Your task to perform on an android device: turn on airplane mode Image 0: 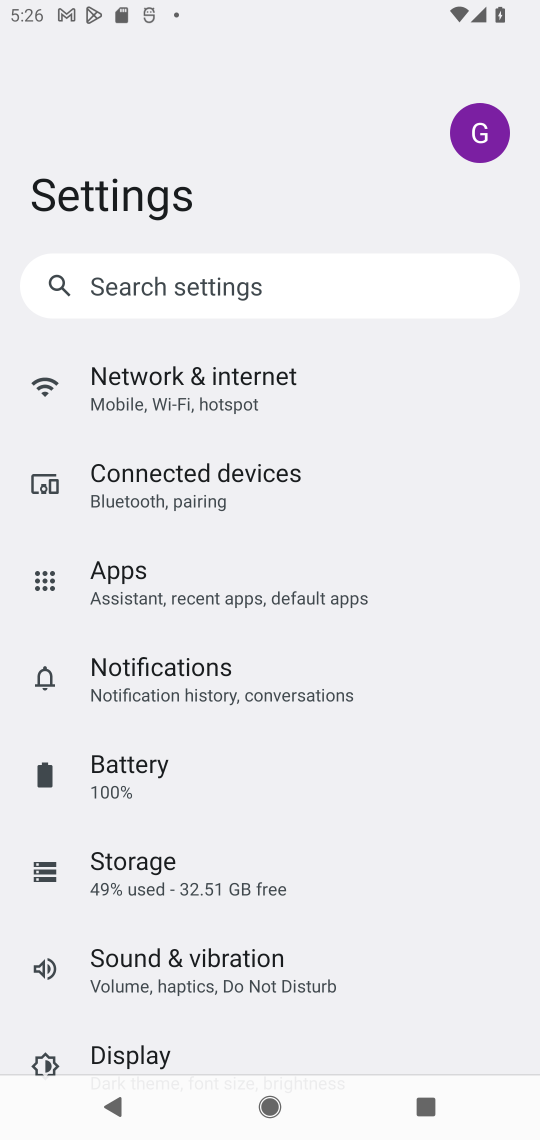
Step 0: click (293, 419)
Your task to perform on an android device: turn on airplane mode Image 1: 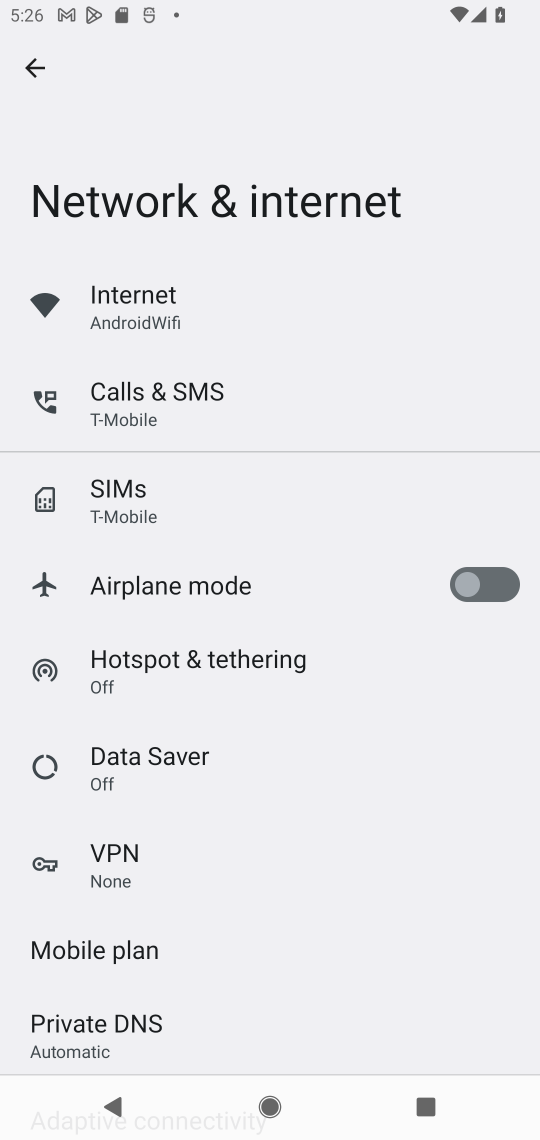
Step 1: click (464, 593)
Your task to perform on an android device: turn on airplane mode Image 2: 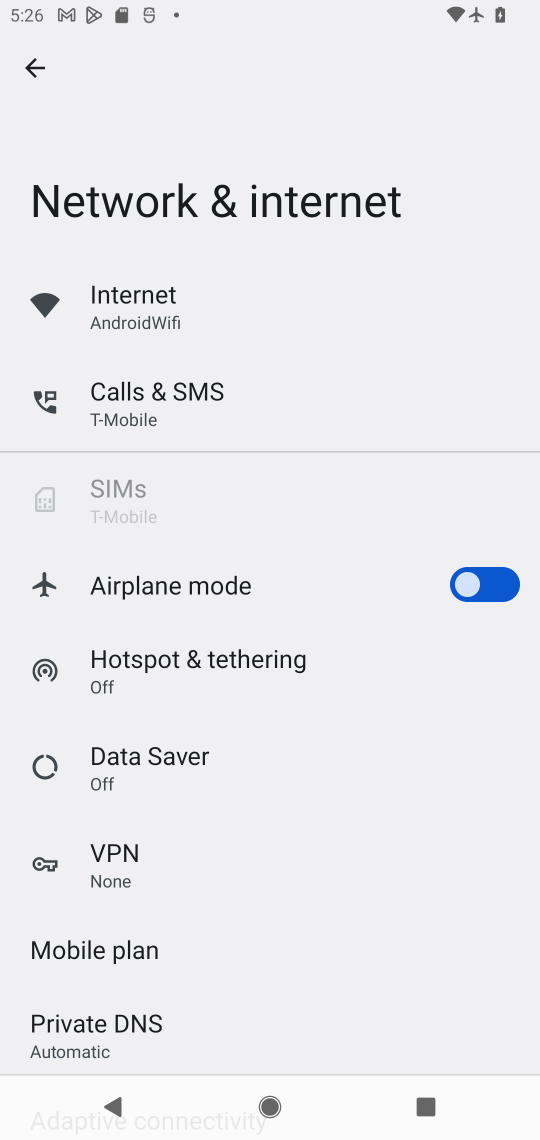
Step 2: task complete